Your task to perform on an android device: check data usage Image 0: 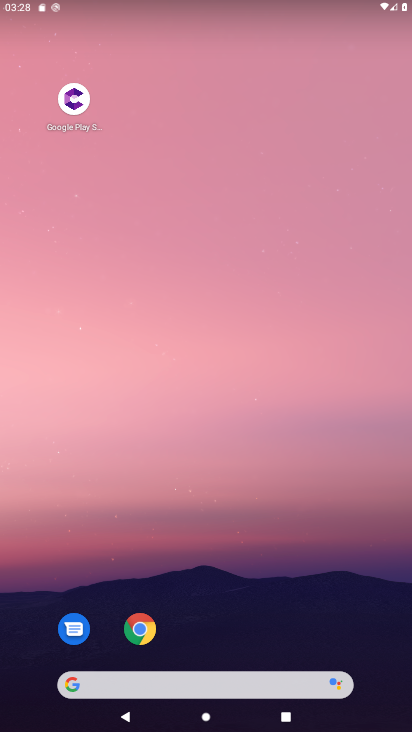
Step 0: drag from (220, 543) to (355, 69)
Your task to perform on an android device: check data usage Image 1: 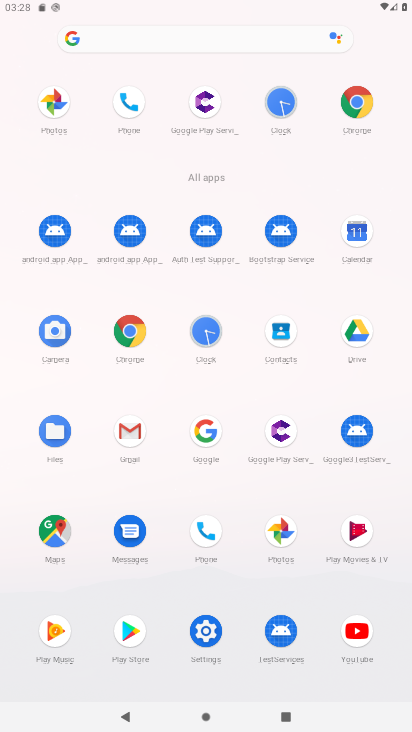
Step 1: click (209, 626)
Your task to perform on an android device: check data usage Image 2: 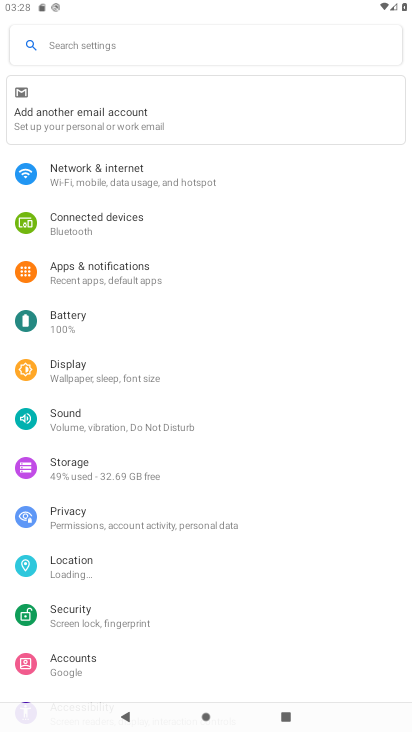
Step 2: click (141, 171)
Your task to perform on an android device: check data usage Image 3: 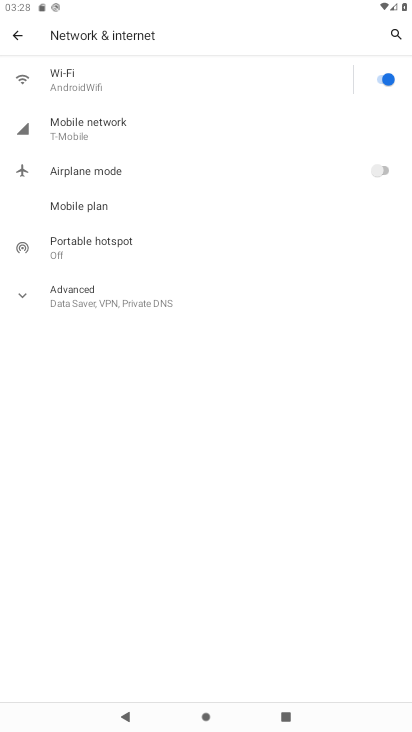
Step 3: click (114, 129)
Your task to perform on an android device: check data usage Image 4: 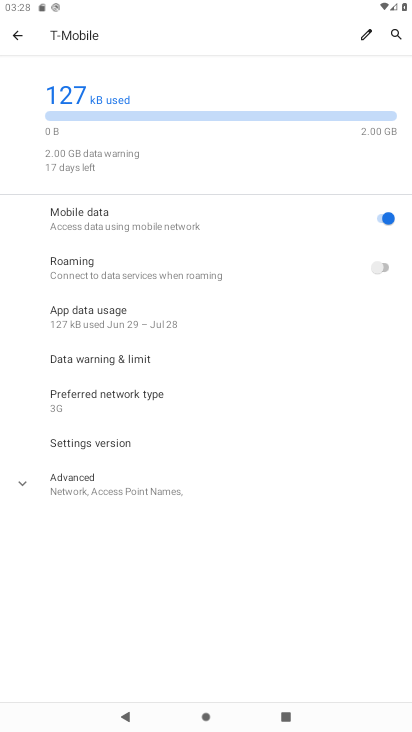
Step 4: click (101, 321)
Your task to perform on an android device: check data usage Image 5: 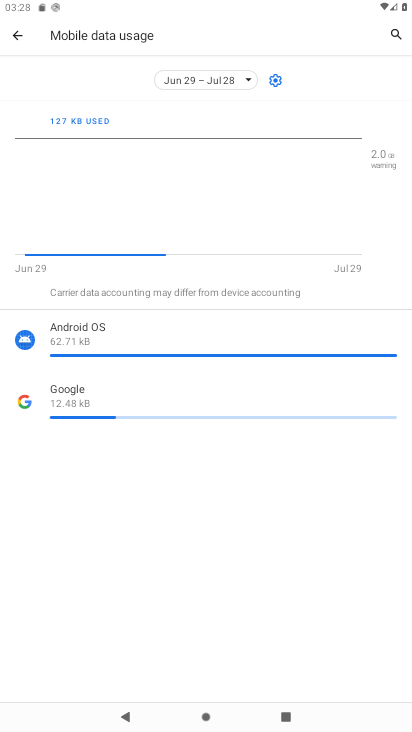
Step 5: task complete